Your task to perform on an android device: change text size in settings app Image 0: 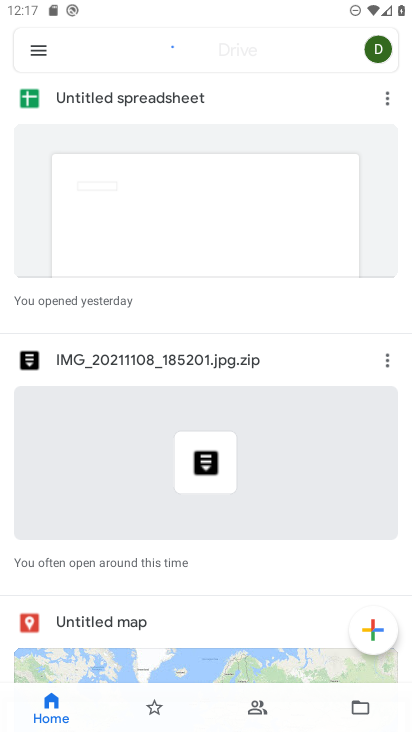
Step 0: press back button
Your task to perform on an android device: change text size in settings app Image 1: 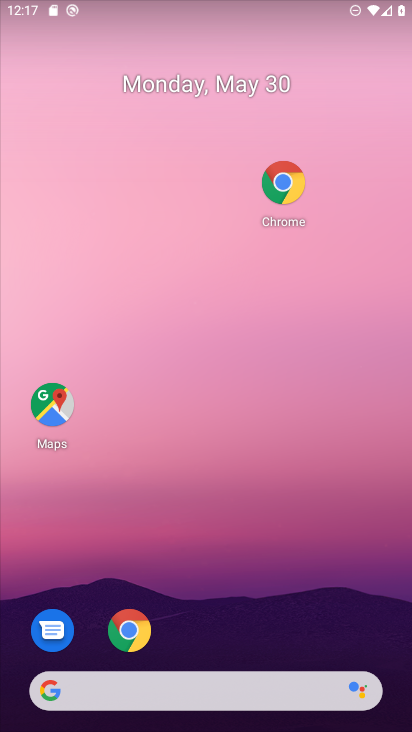
Step 1: drag from (240, 706) to (161, 101)
Your task to perform on an android device: change text size in settings app Image 2: 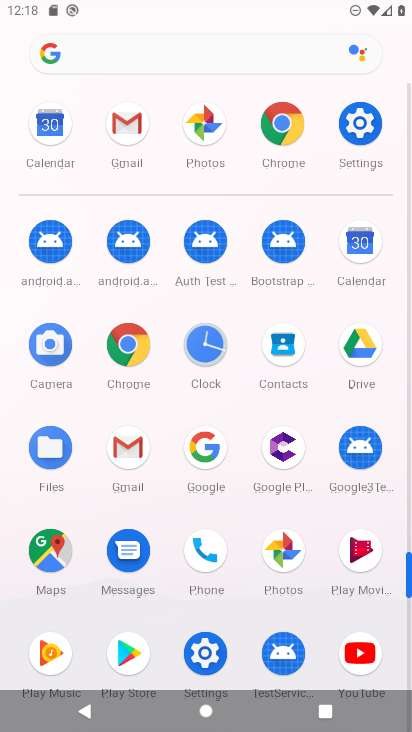
Step 2: click (355, 128)
Your task to perform on an android device: change text size in settings app Image 3: 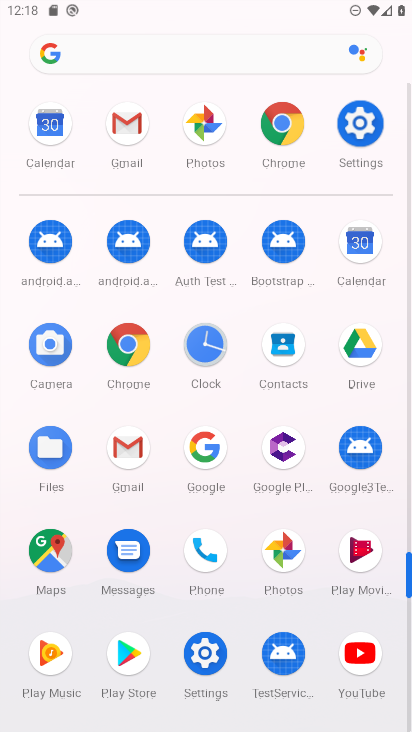
Step 3: click (364, 128)
Your task to perform on an android device: change text size in settings app Image 4: 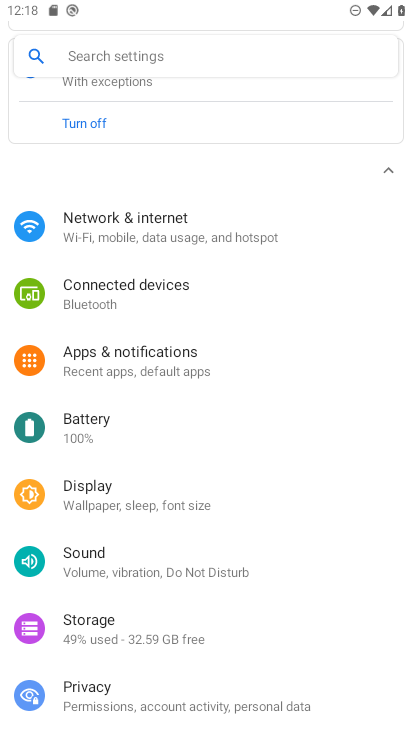
Step 4: click (79, 494)
Your task to perform on an android device: change text size in settings app Image 5: 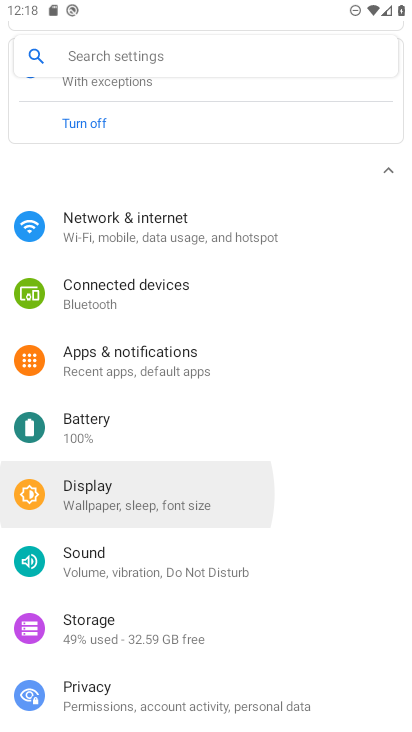
Step 5: click (81, 491)
Your task to perform on an android device: change text size in settings app Image 6: 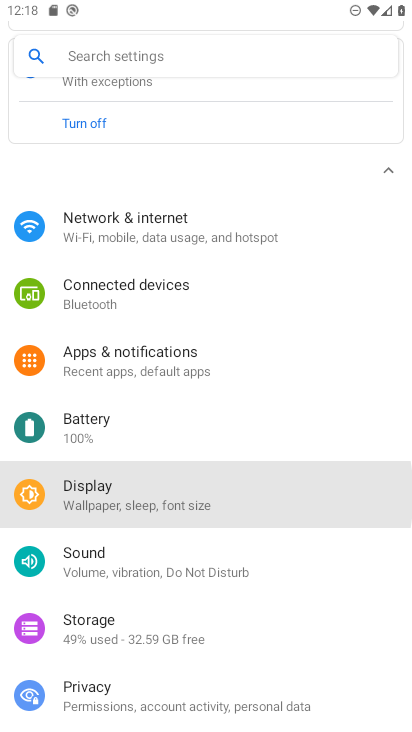
Step 6: click (91, 485)
Your task to perform on an android device: change text size in settings app Image 7: 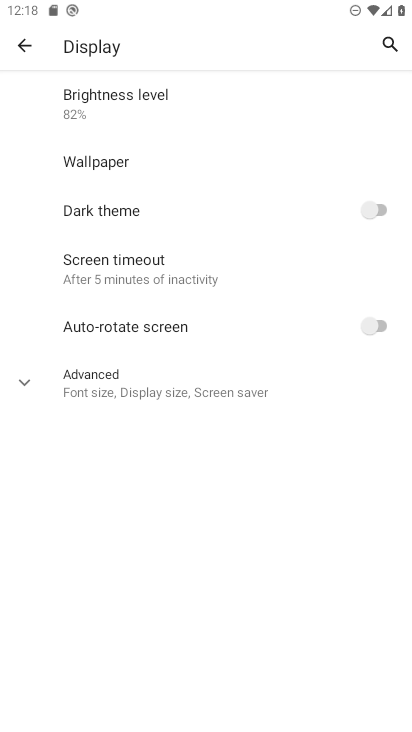
Step 7: click (88, 376)
Your task to perform on an android device: change text size in settings app Image 8: 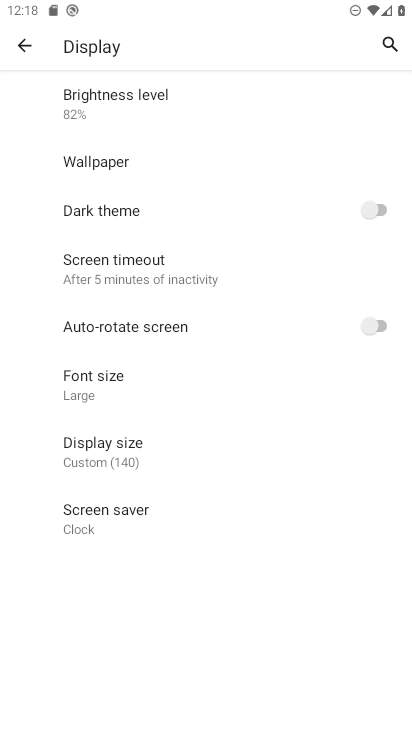
Step 8: click (81, 374)
Your task to perform on an android device: change text size in settings app Image 9: 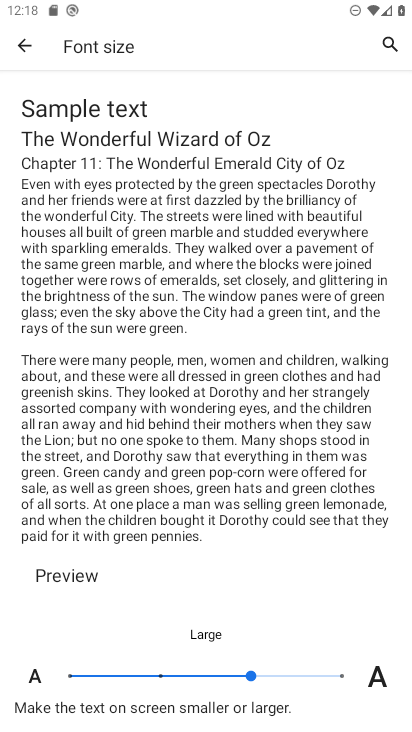
Step 9: click (333, 674)
Your task to perform on an android device: change text size in settings app Image 10: 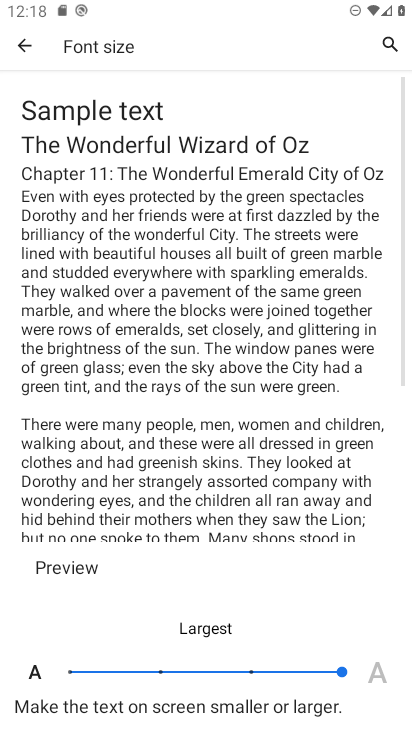
Step 10: task complete